Your task to perform on an android device: open chrome privacy settings Image 0: 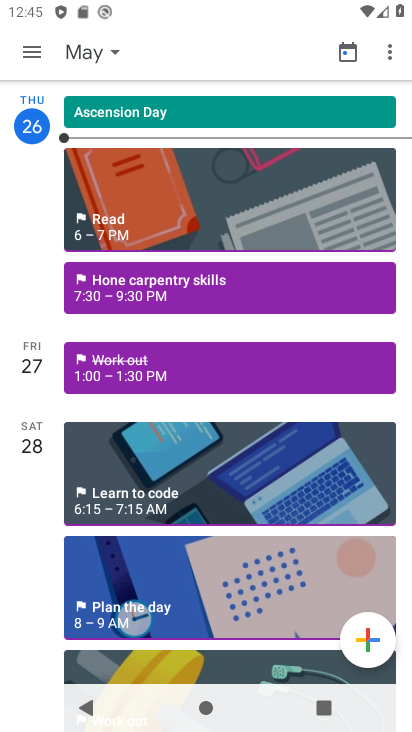
Step 0: press home button
Your task to perform on an android device: open chrome privacy settings Image 1: 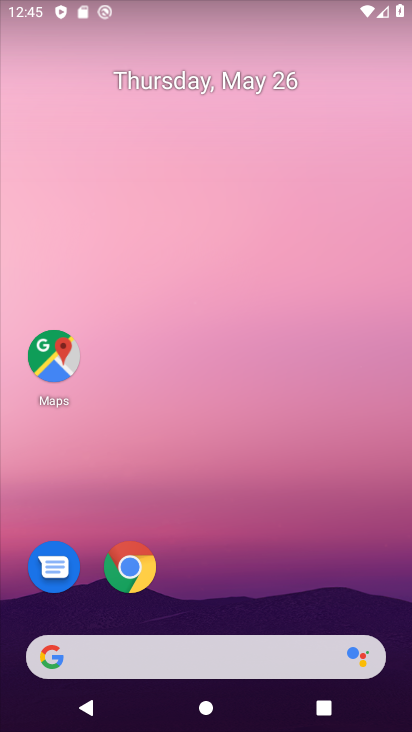
Step 1: click (128, 573)
Your task to perform on an android device: open chrome privacy settings Image 2: 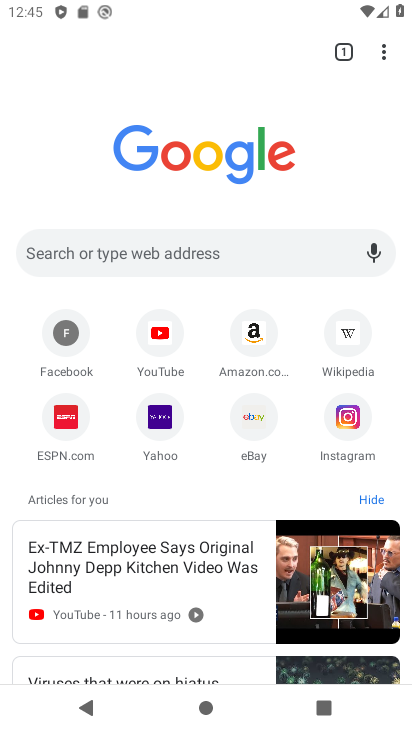
Step 2: click (376, 55)
Your task to perform on an android device: open chrome privacy settings Image 3: 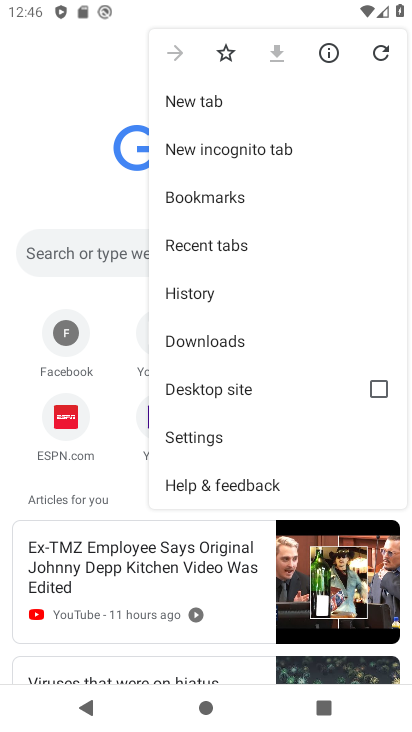
Step 3: click (212, 431)
Your task to perform on an android device: open chrome privacy settings Image 4: 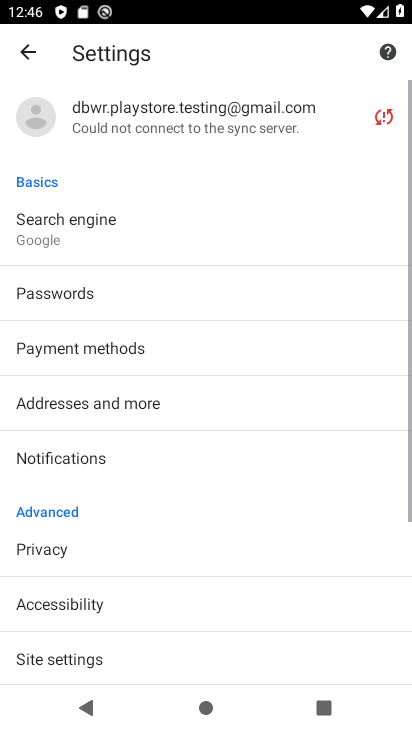
Step 4: click (95, 559)
Your task to perform on an android device: open chrome privacy settings Image 5: 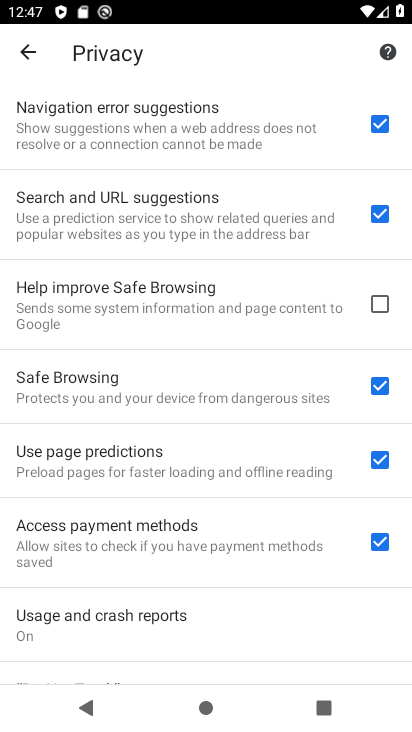
Step 5: task complete